Your task to perform on an android device: Go to Yahoo.com Image 0: 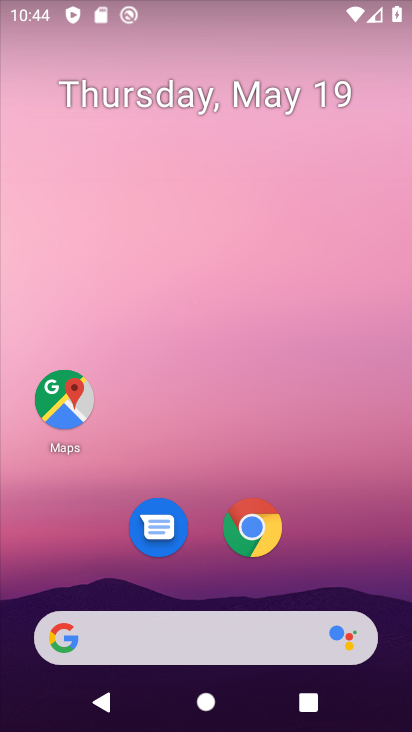
Step 0: click (251, 539)
Your task to perform on an android device: Go to Yahoo.com Image 1: 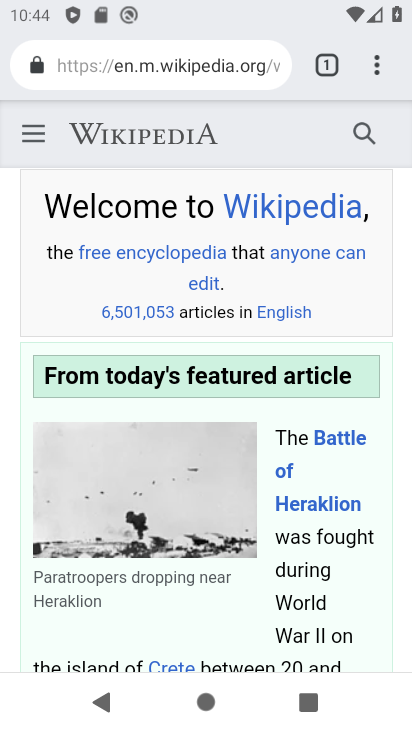
Step 1: click (154, 66)
Your task to perform on an android device: Go to Yahoo.com Image 2: 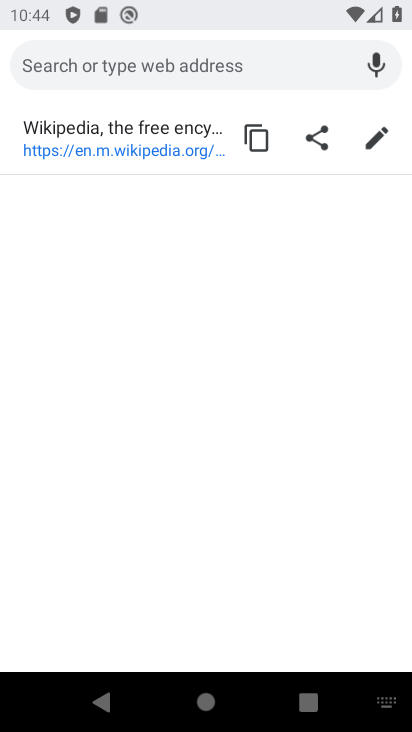
Step 2: type "yahoo.com"
Your task to perform on an android device: Go to Yahoo.com Image 3: 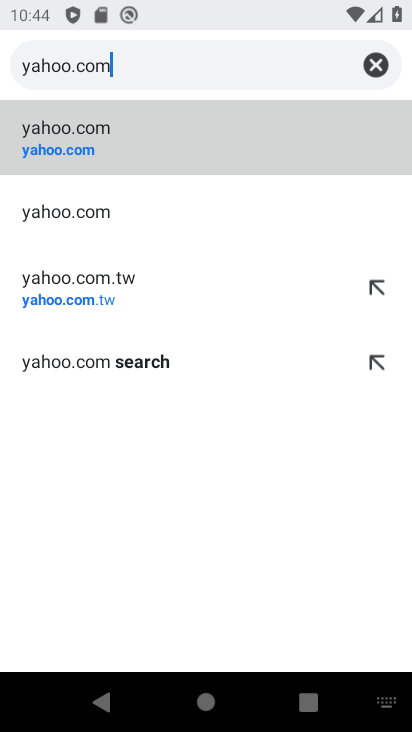
Step 3: click (83, 159)
Your task to perform on an android device: Go to Yahoo.com Image 4: 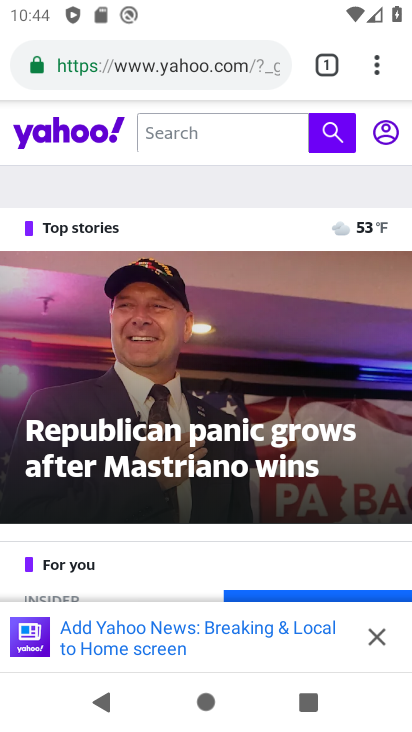
Step 4: task complete